Your task to perform on an android device: open device folders in google photos Image 0: 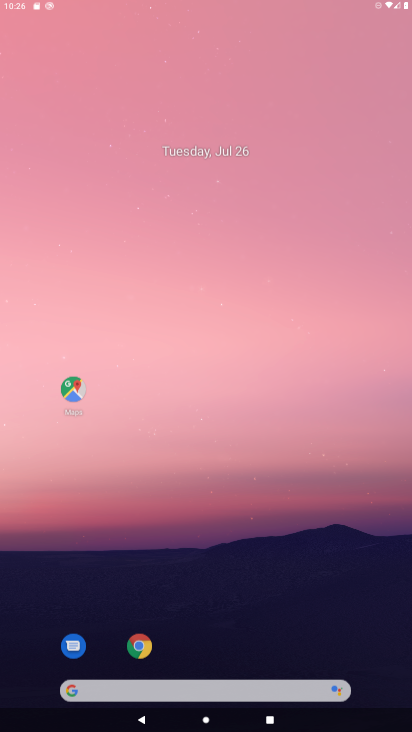
Step 0: press home button
Your task to perform on an android device: open device folders in google photos Image 1: 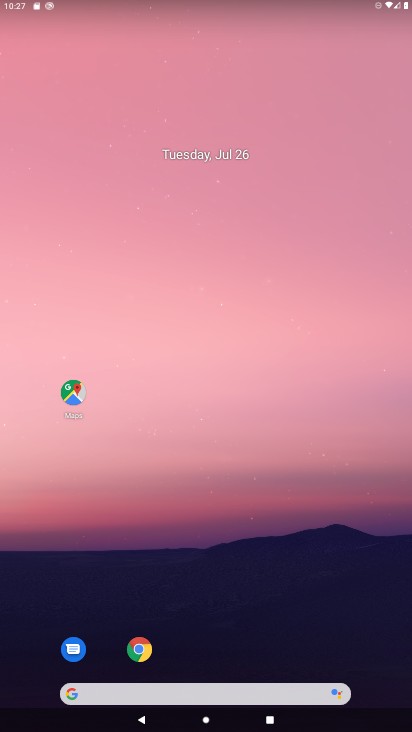
Step 1: drag from (214, 678) to (223, 87)
Your task to perform on an android device: open device folders in google photos Image 2: 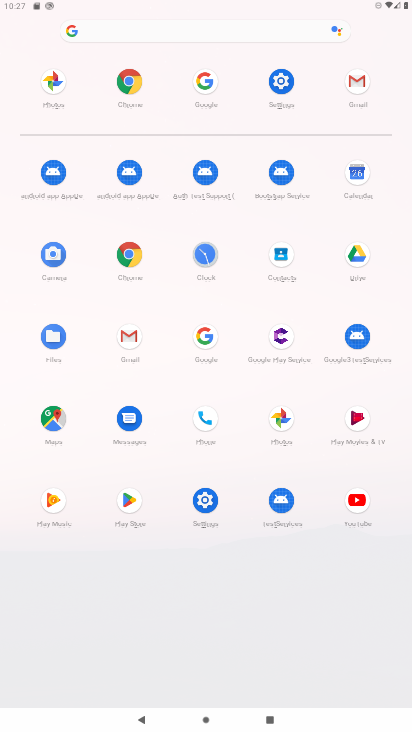
Step 2: click (281, 423)
Your task to perform on an android device: open device folders in google photos Image 3: 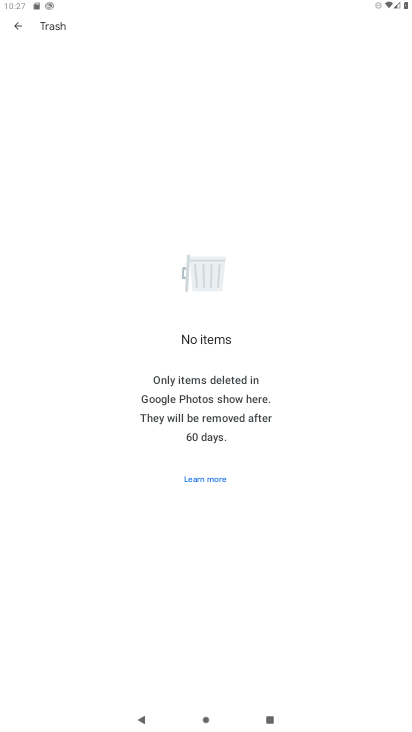
Step 3: click (22, 29)
Your task to perform on an android device: open device folders in google photos Image 4: 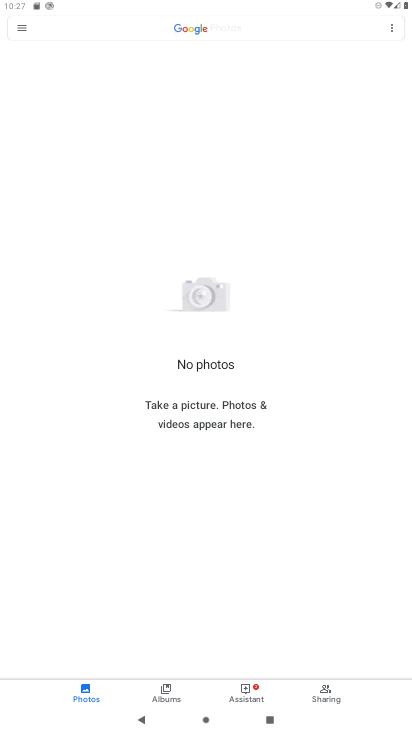
Step 4: click (19, 32)
Your task to perform on an android device: open device folders in google photos Image 5: 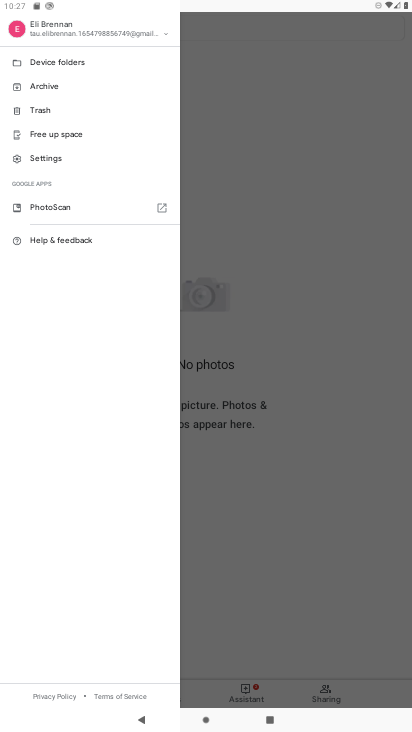
Step 5: click (203, 160)
Your task to perform on an android device: open device folders in google photos Image 6: 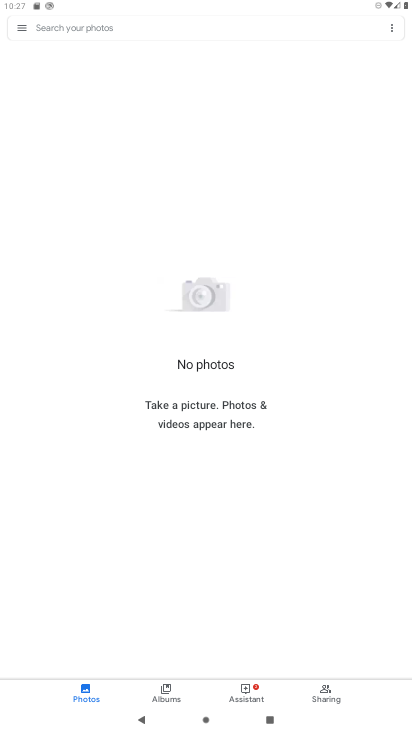
Step 6: task complete